Your task to perform on an android device: Open maps Image 0: 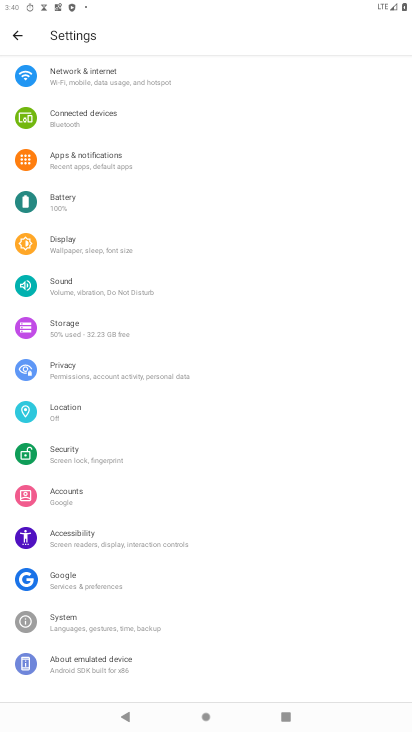
Step 0: press home button
Your task to perform on an android device: Open maps Image 1: 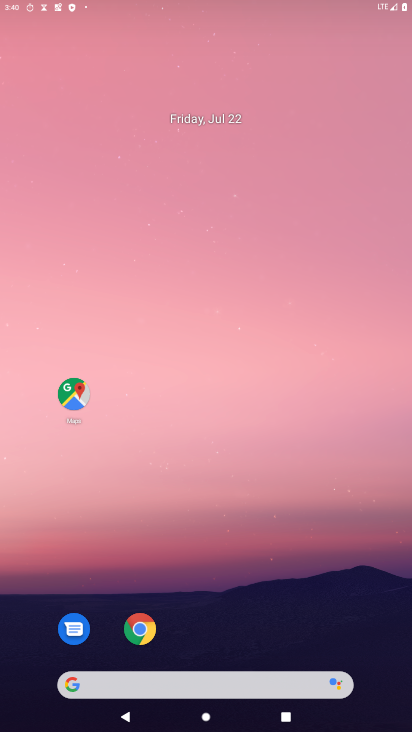
Step 1: drag from (223, 684) to (176, 24)
Your task to perform on an android device: Open maps Image 2: 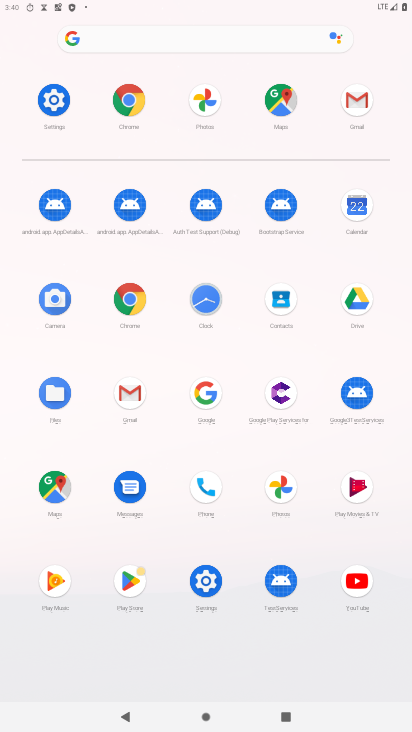
Step 2: click (47, 496)
Your task to perform on an android device: Open maps Image 3: 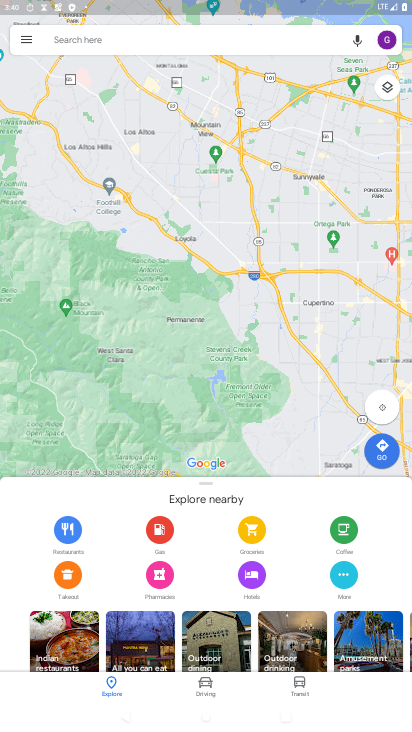
Step 3: task complete